Your task to perform on an android device: Open Chrome and go to the settings page Image 0: 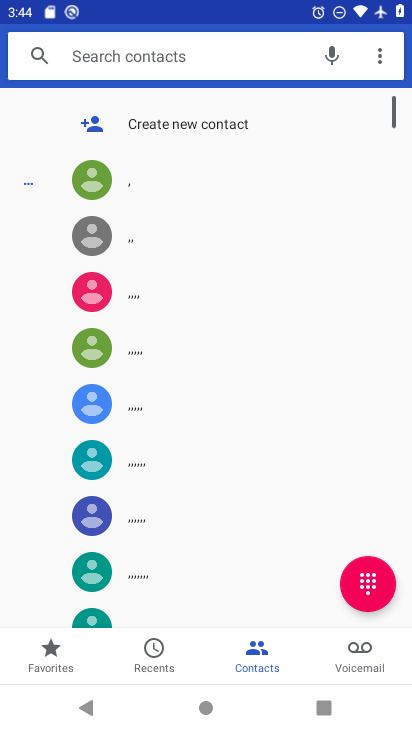
Step 0: press home button
Your task to perform on an android device: Open Chrome and go to the settings page Image 1: 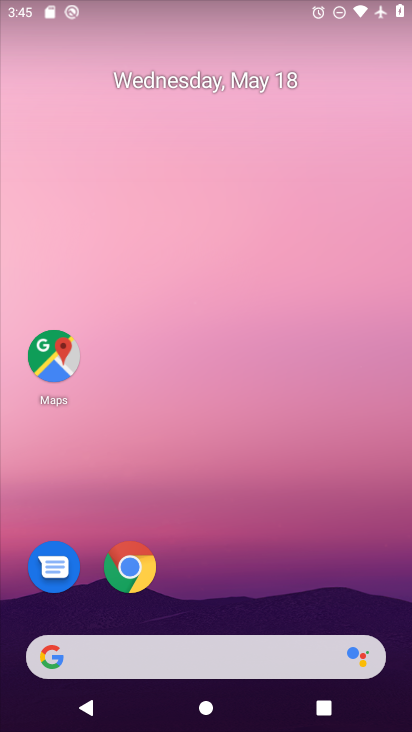
Step 1: drag from (281, 615) to (211, 125)
Your task to perform on an android device: Open Chrome and go to the settings page Image 2: 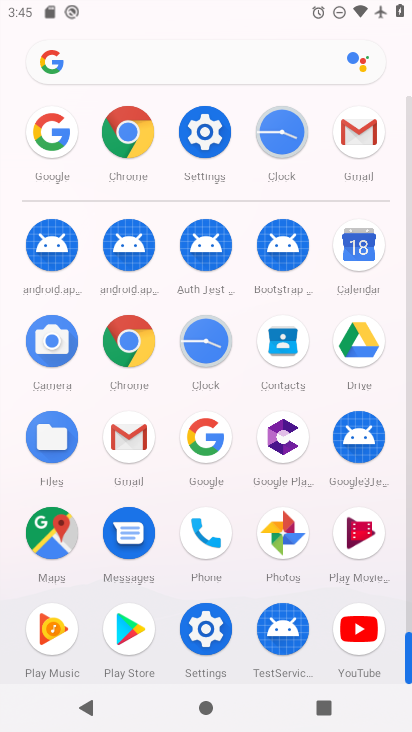
Step 2: click (133, 131)
Your task to perform on an android device: Open Chrome and go to the settings page Image 3: 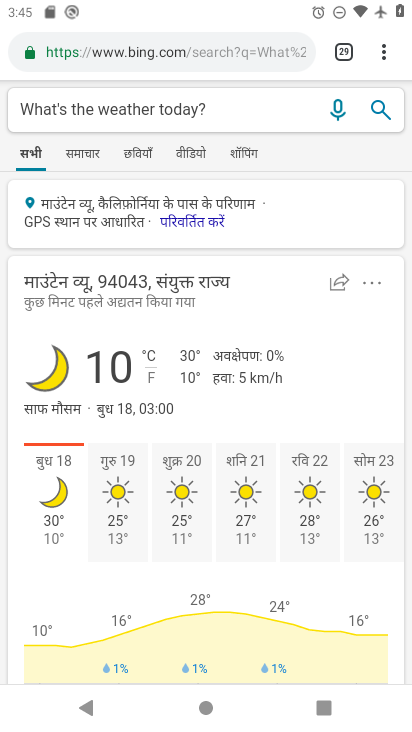
Step 3: click (373, 40)
Your task to perform on an android device: Open Chrome and go to the settings page Image 4: 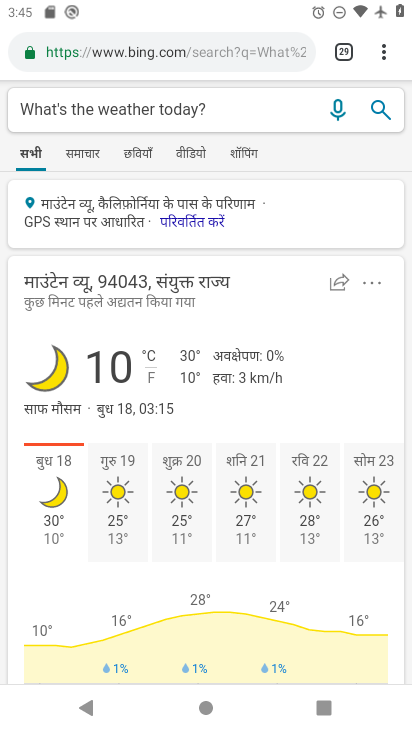
Step 4: click (376, 53)
Your task to perform on an android device: Open Chrome and go to the settings page Image 5: 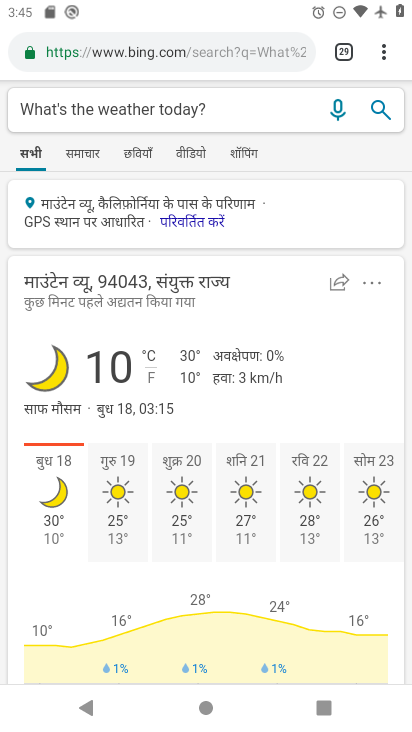
Step 5: click (384, 51)
Your task to perform on an android device: Open Chrome and go to the settings page Image 6: 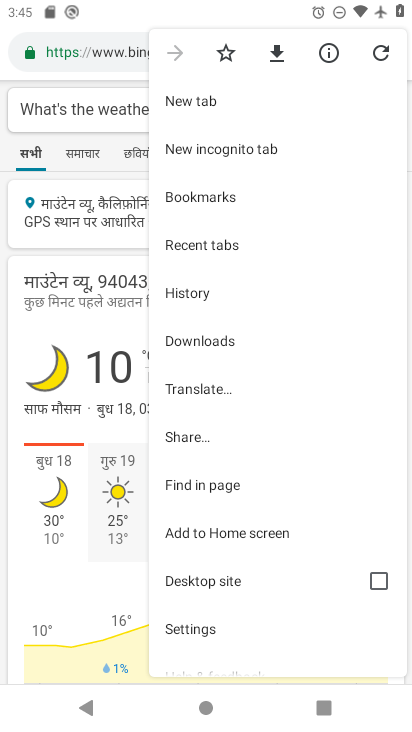
Step 6: click (205, 623)
Your task to perform on an android device: Open Chrome and go to the settings page Image 7: 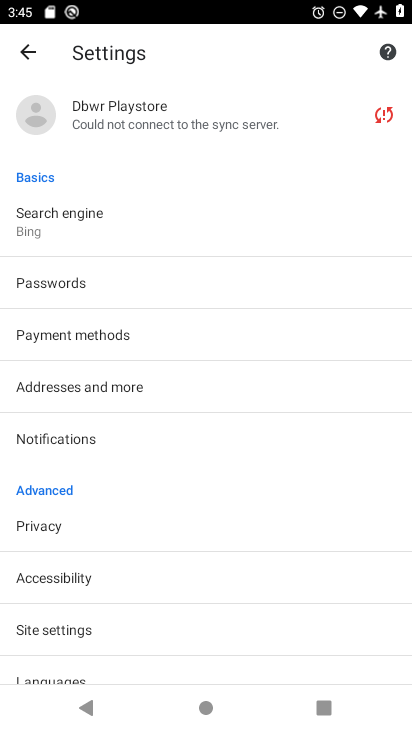
Step 7: task complete